Your task to perform on an android device: What is the recent news? Image 0: 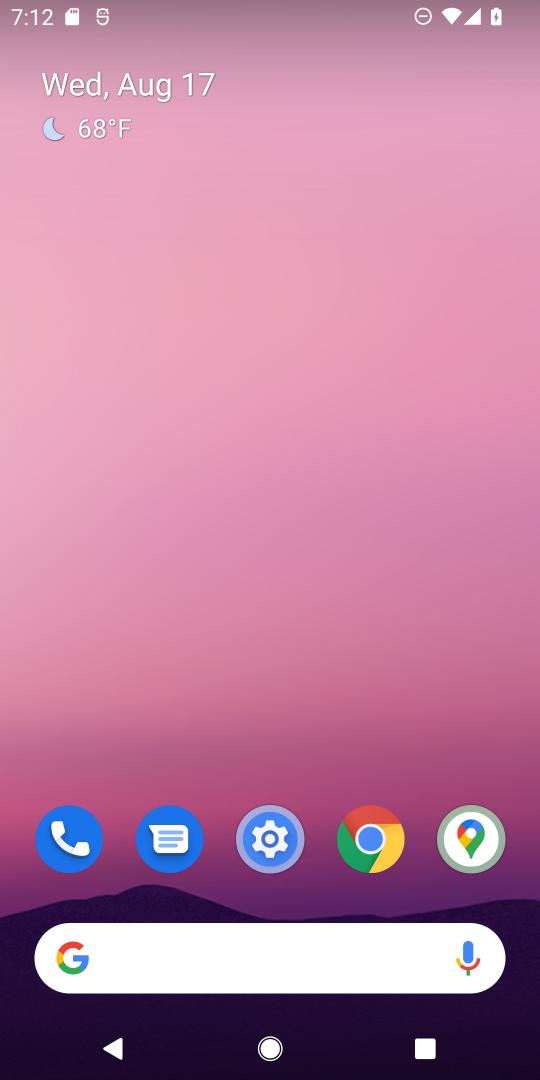
Step 0: click (172, 953)
Your task to perform on an android device: What is the recent news? Image 1: 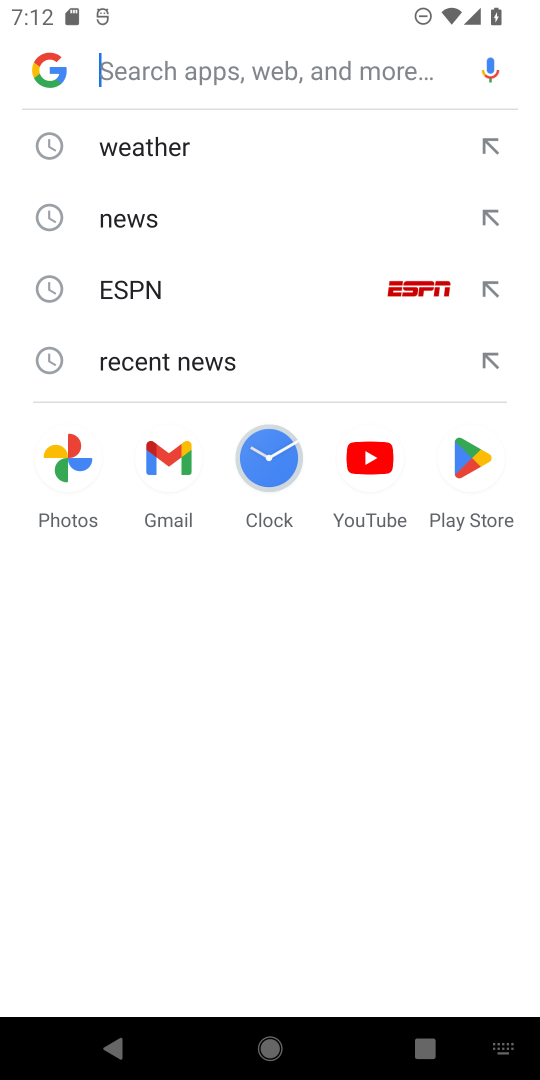
Step 1: click (75, 207)
Your task to perform on an android device: What is the recent news? Image 2: 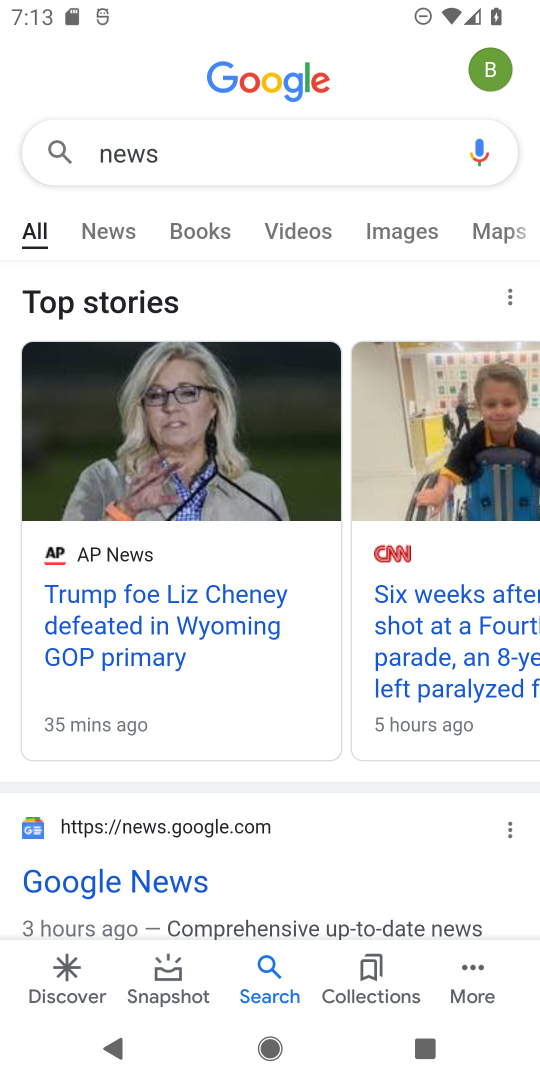
Step 2: click (84, 221)
Your task to perform on an android device: What is the recent news? Image 3: 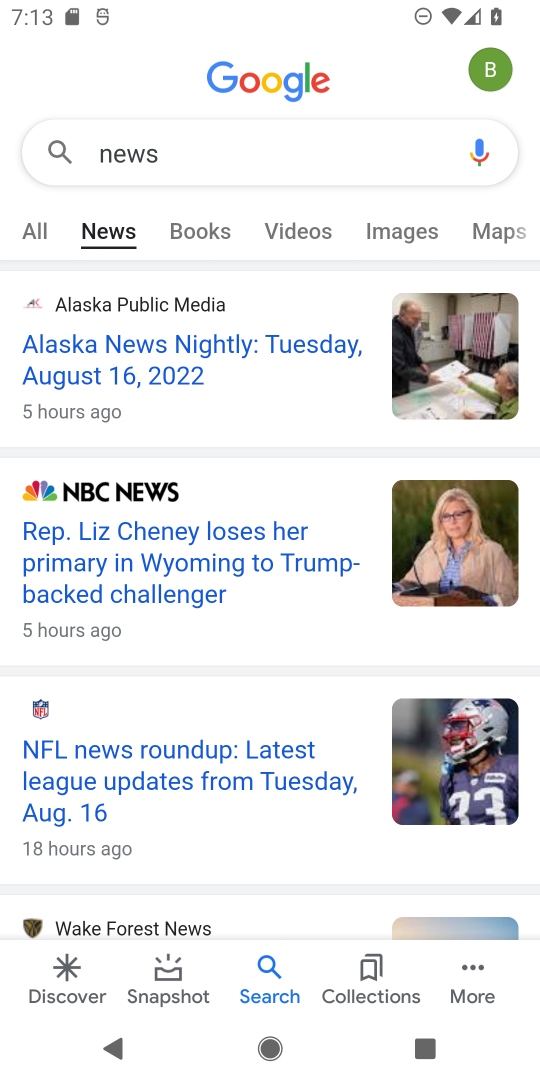
Step 3: task complete